Your task to perform on an android device: Open location settings Image 0: 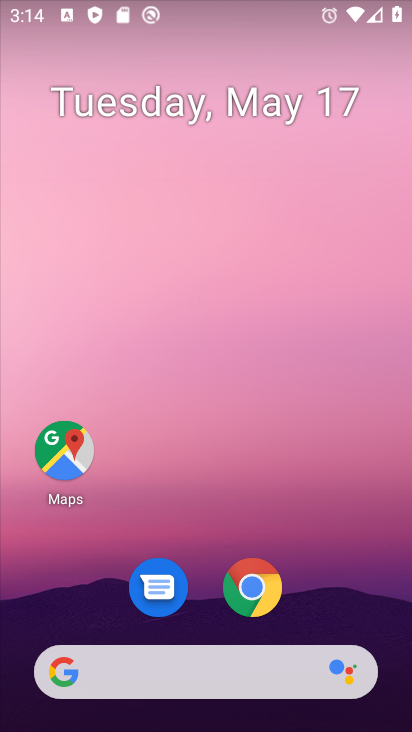
Step 0: drag from (198, 615) to (174, 206)
Your task to perform on an android device: Open location settings Image 1: 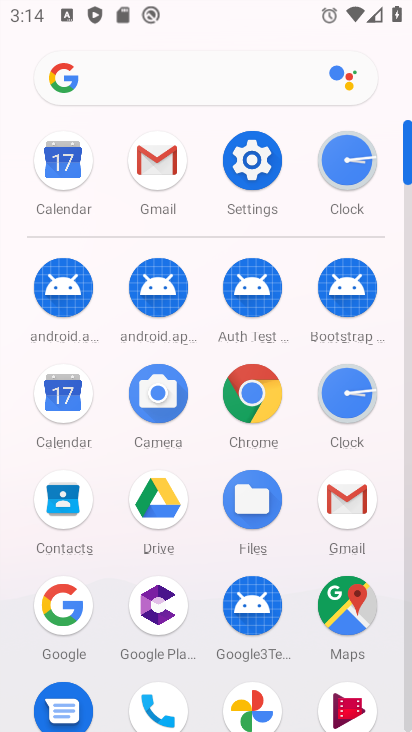
Step 1: click (251, 149)
Your task to perform on an android device: Open location settings Image 2: 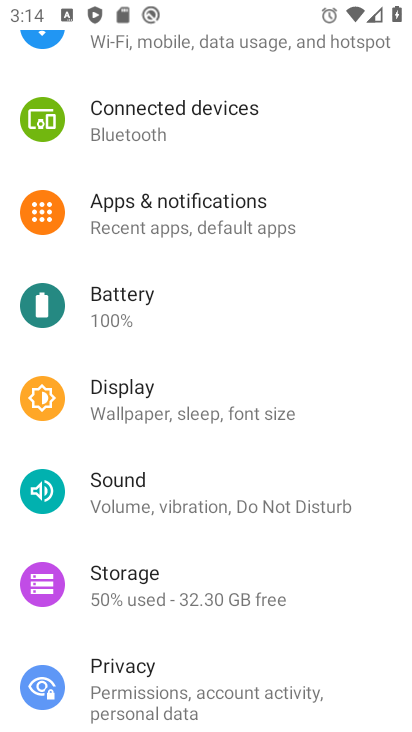
Step 2: drag from (225, 187) to (263, 573)
Your task to perform on an android device: Open location settings Image 3: 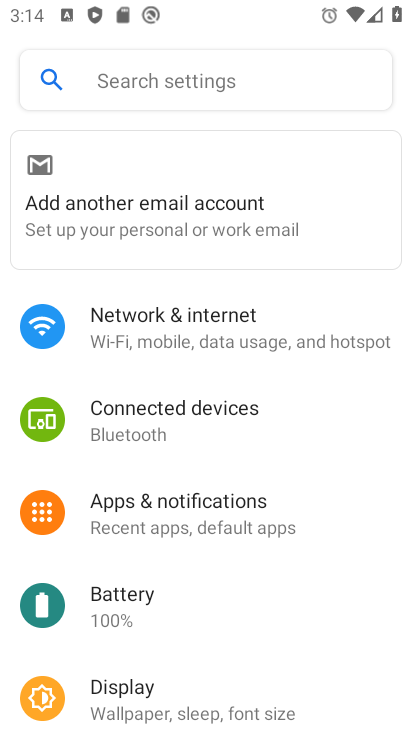
Step 3: drag from (228, 550) to (340, 177)
Your task to perform on an android device: Open location settings Image 4: 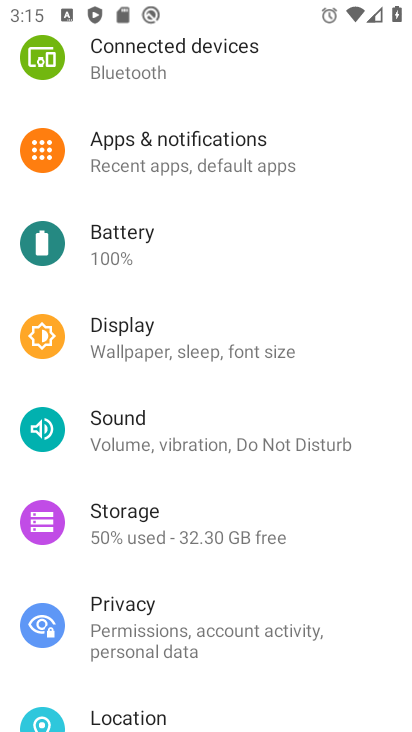
Step 4: click (168, 714)
Your task to perform on an android device: Open location settings Image 5: 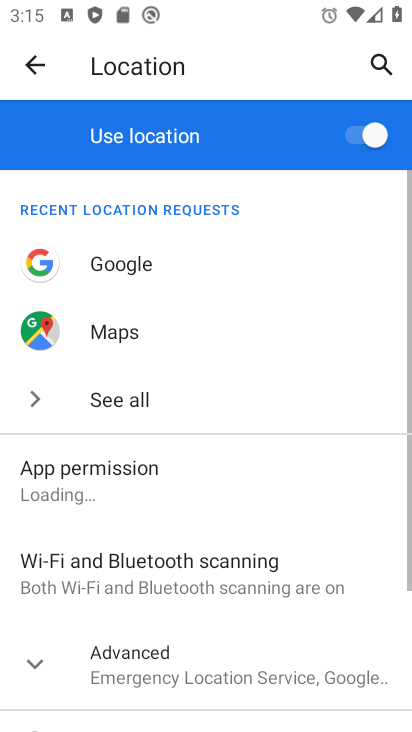
Step 5: task complete